Your task to perform on an android device: choose inbox layout in the gmail app Image 0: 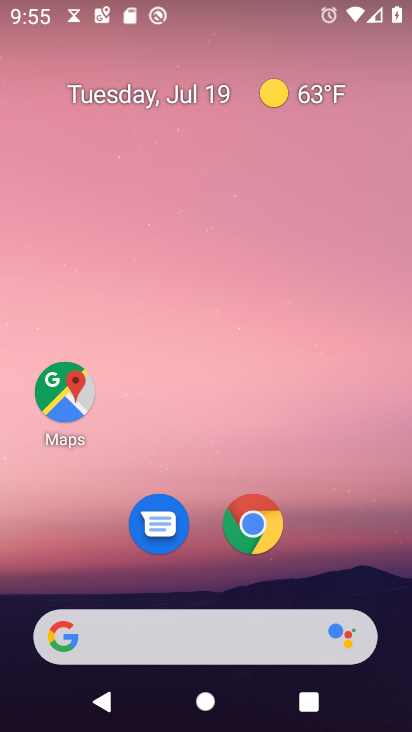
Step 0: press home button
Your task to perform on an android device: choose inbox layout in the gmail app Image 1: 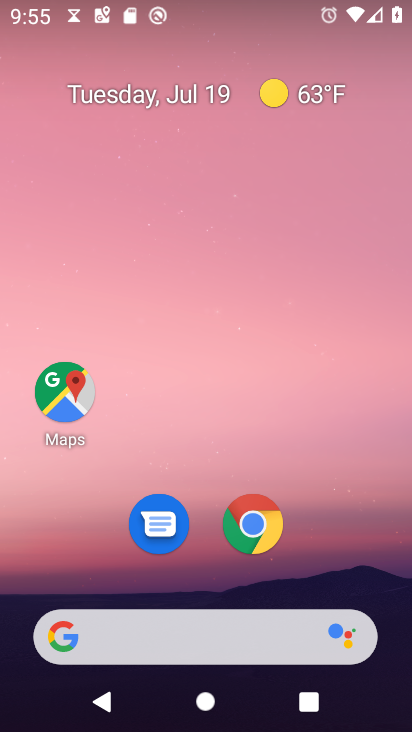
Step 1: drag from (182, 625) to (295, 111)
Your task to perform on an android device: choose inbox layout in the gmail app Image 2: 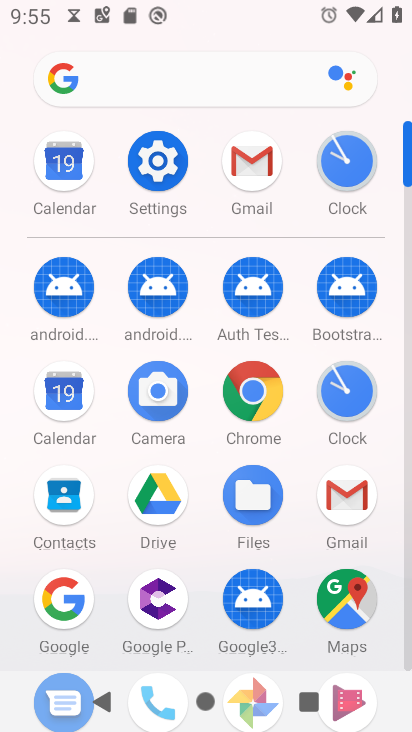
Step 2: click (256, 175)
Your task to perform on an android device: choose inbox layout in the gmail app Image 3: 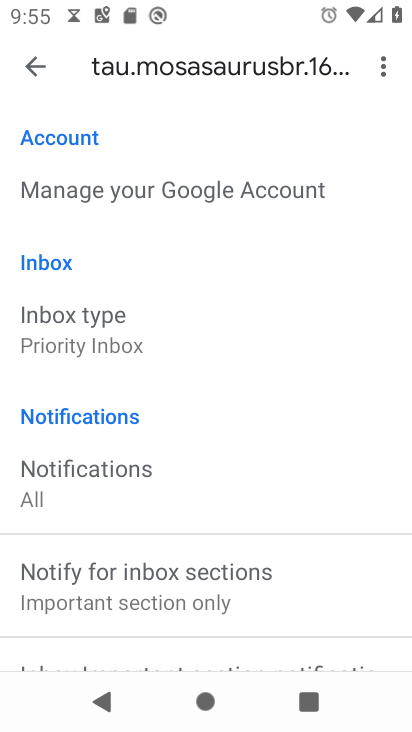
Step 3: click (77, 331)
Your task to perform on an android device: choose inbox layout in the gmail app Image 4: 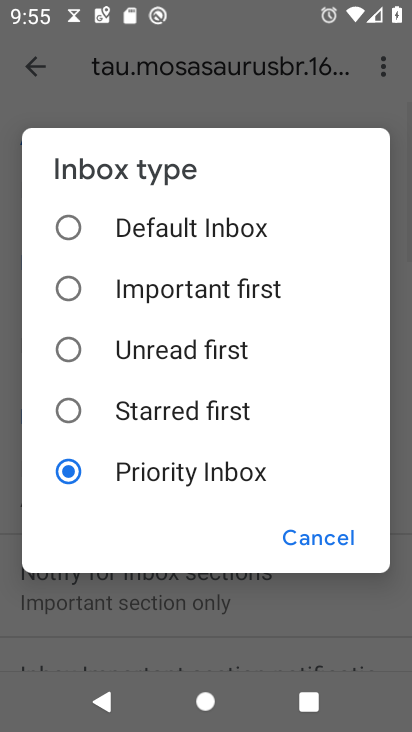
Step 4: click (71, 217)
Your task to perform on an android device: choose inbox layout in the gmail app Image 5: 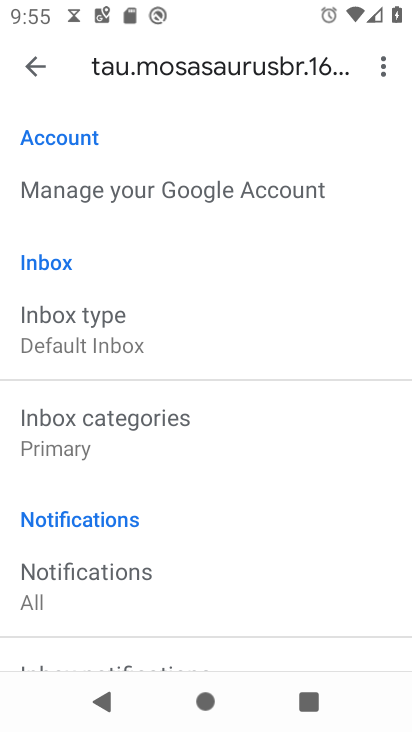
Step 5: task complete